Your task to perform on an android device: Go to display settings Image 0: 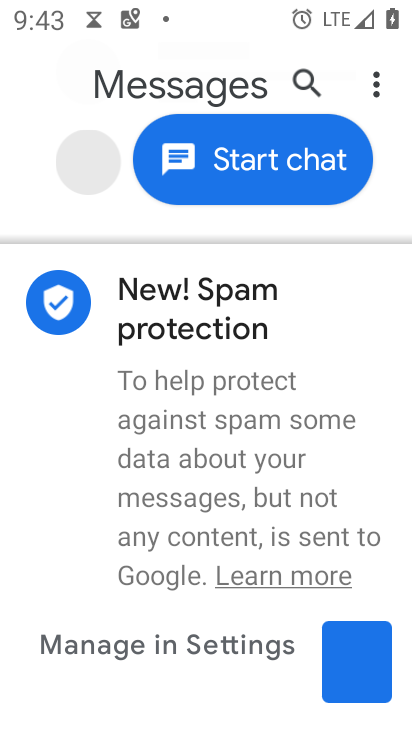
Step 0: press home button
Your task to perform on an android device: Go to display settings Image 1: 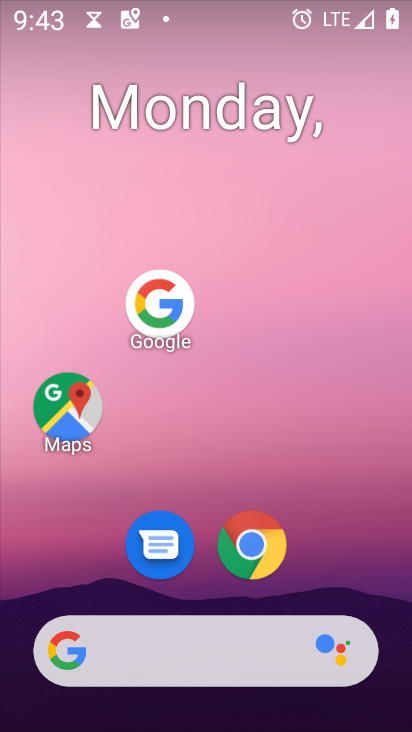
Step 1: drag from (172, 657) to (257, 71)
Your task to perform on an android device: Go to display settings Image 2: 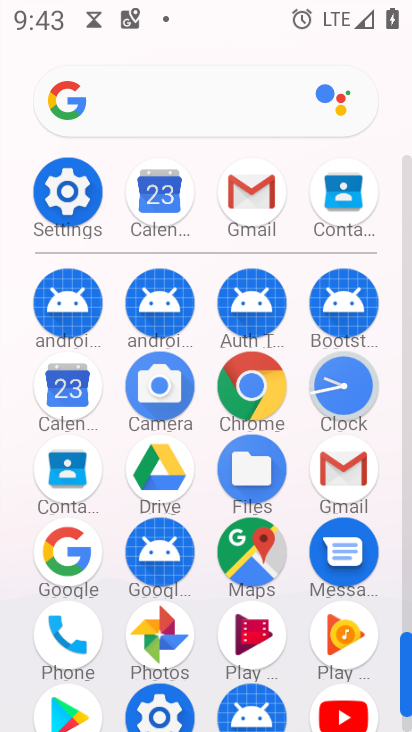
Step 2: click (62, 200)
Your task to perform on an android device: Go to display settings Image 3: 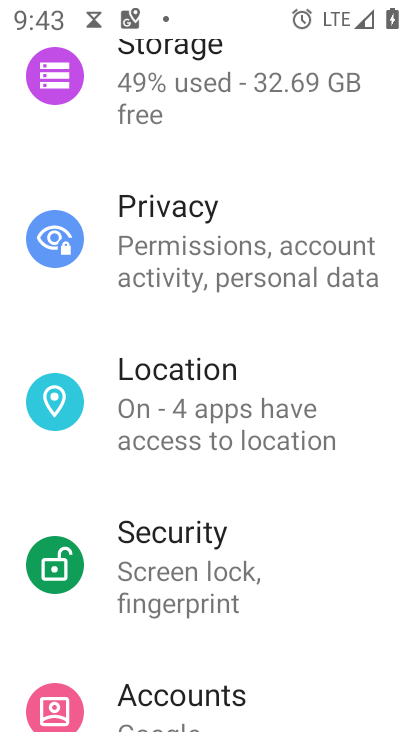
Step 3: drag from (288, 182) to (283, 677)
Your task to perform on an android device: Go to display settings Image 4: 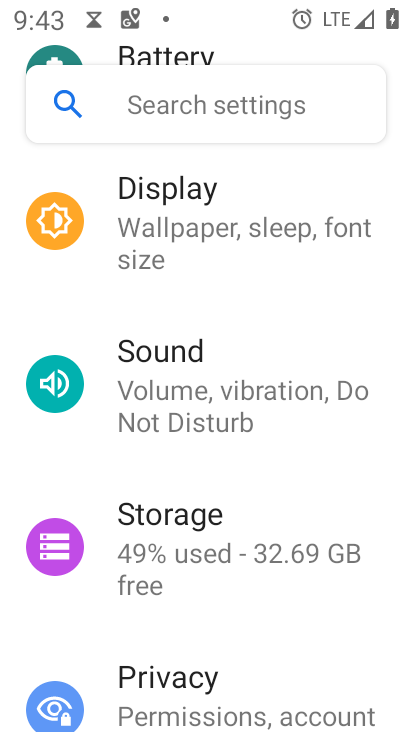
Step 4: click (180, 202)
Your task to perform on an android device: Go to display settings Image 5: 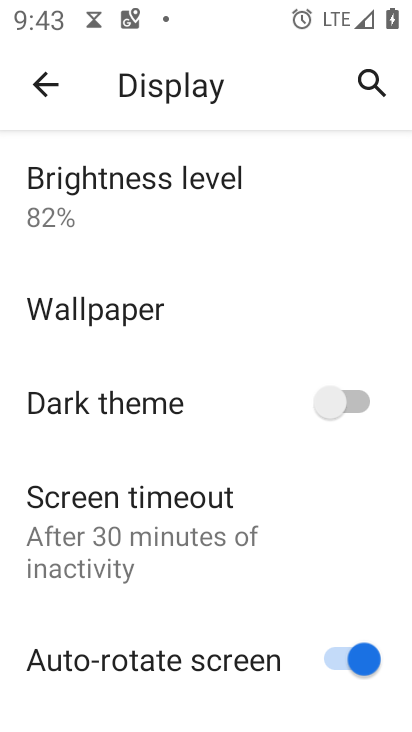
Step 5: task complete